Your task to perform on an android device: change the clock display to digital Image 0: 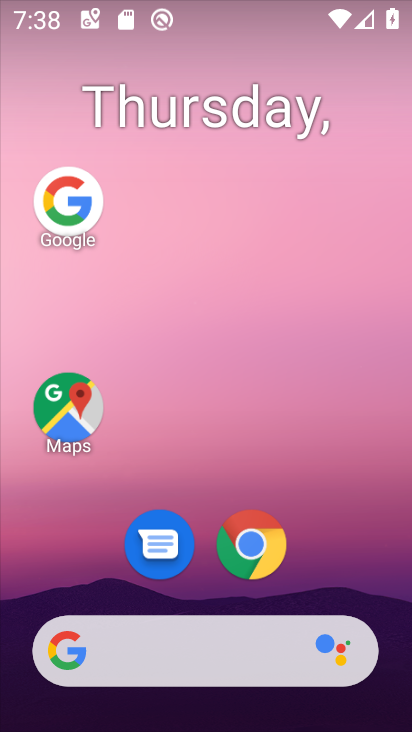
Step 0: drag from (264, 684) to (253, 115)
Your task to perform on an android device: change the clock display to digital Image 1: 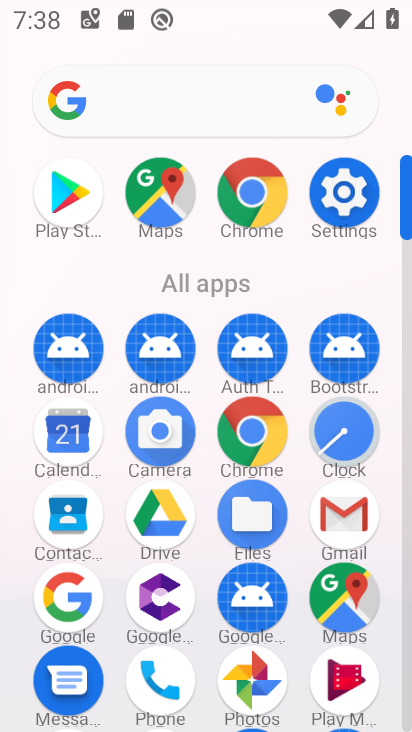
Step 1: click (350, 446)
Your task to perform on an android device: change the clock display to digital Image 2: 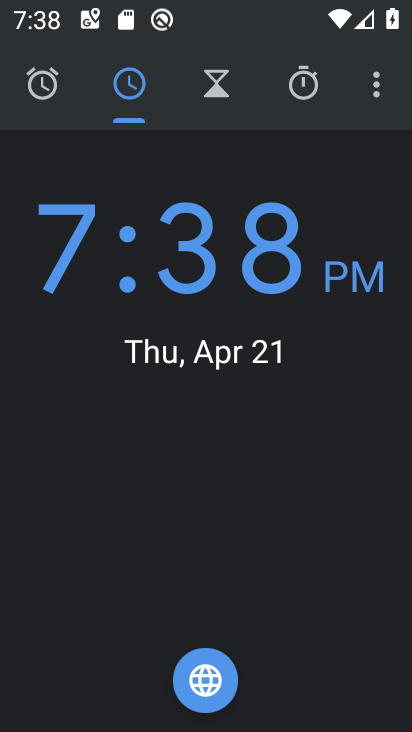
Step 2: click (383, 87)
Your task to perform on an android device: change the clock display to digital Image 3: 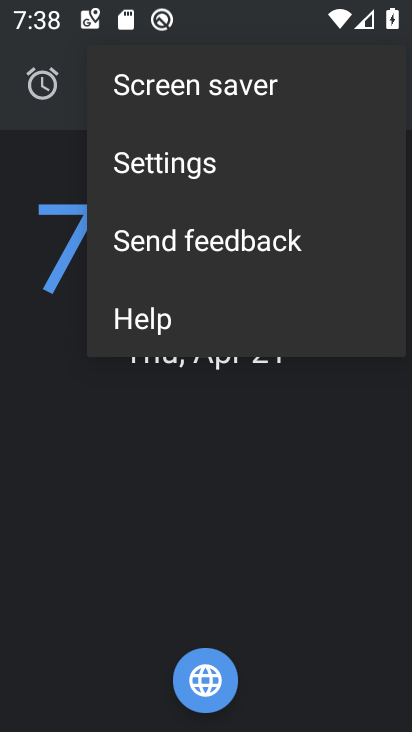
Step 3: click (223, 153)
Your task to perform on an android device: change the clock display to digital Image 4: 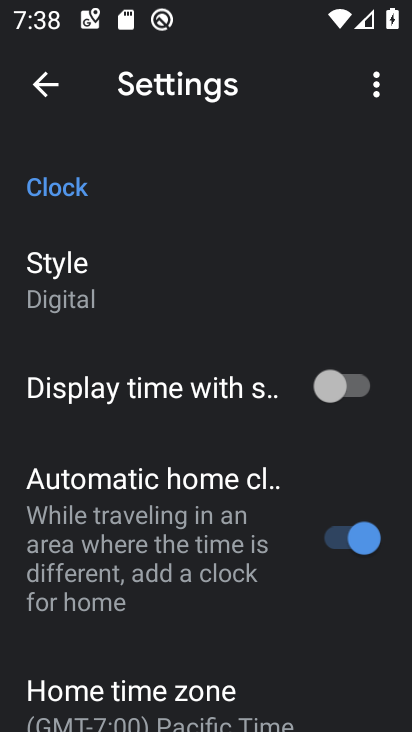
Step 4: click (121, 264)
Your task to perform on an android device: change the clock display to digital Image 5: 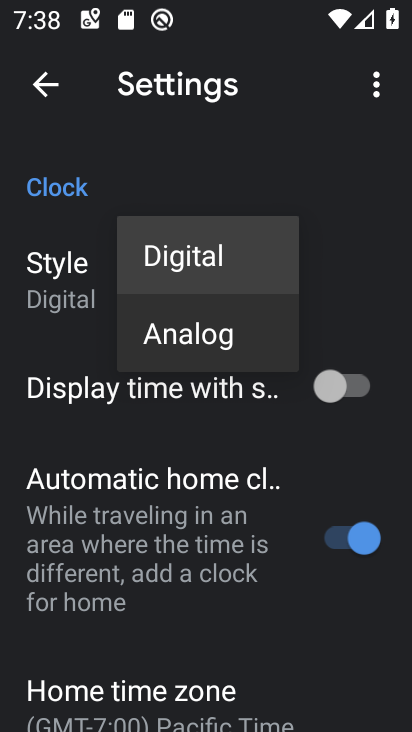
Step 5: click (194, 337)
Your task to perform on an android device: change the clock display to digital Image 6: 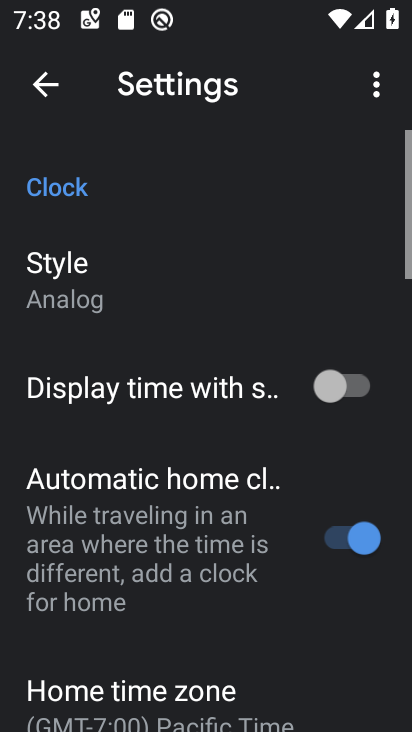
Step 6: click (75, 285)
Your task to perform on an android device: change the clock display to digital Image 7: 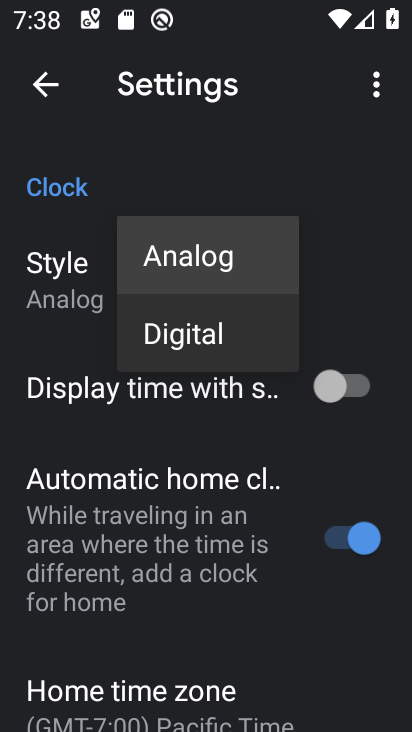
Step 7: click (175, 335)
Your task to perform on an android device: change the clock display to digital Image 8: 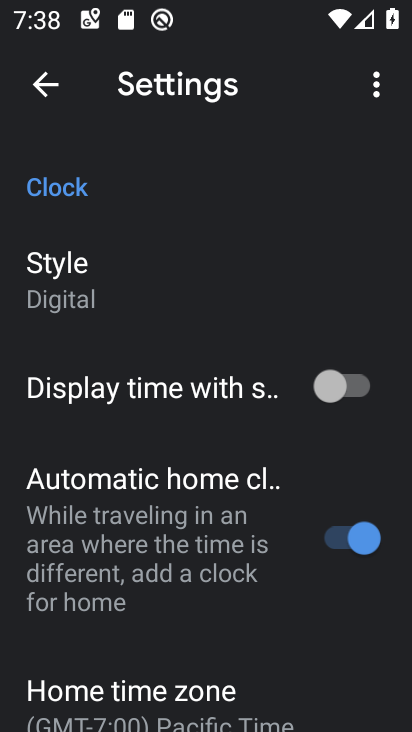
Step 8: task complete